Your task to perform on an android device: open app "AliExpress" Image 0: 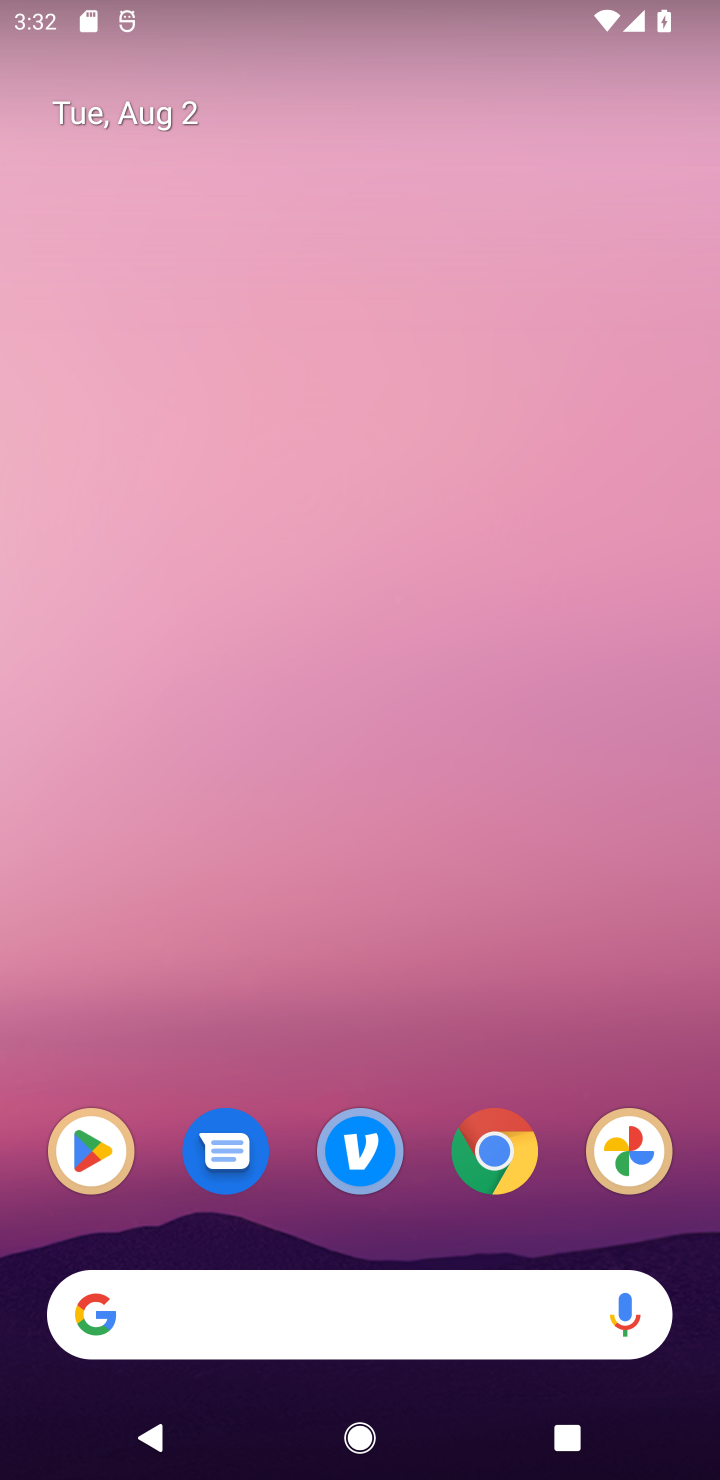
Step 0: drag from (328, 1199) to (443, 263)
Your task to perform on an android device: open app "AliExpress" Image 1: 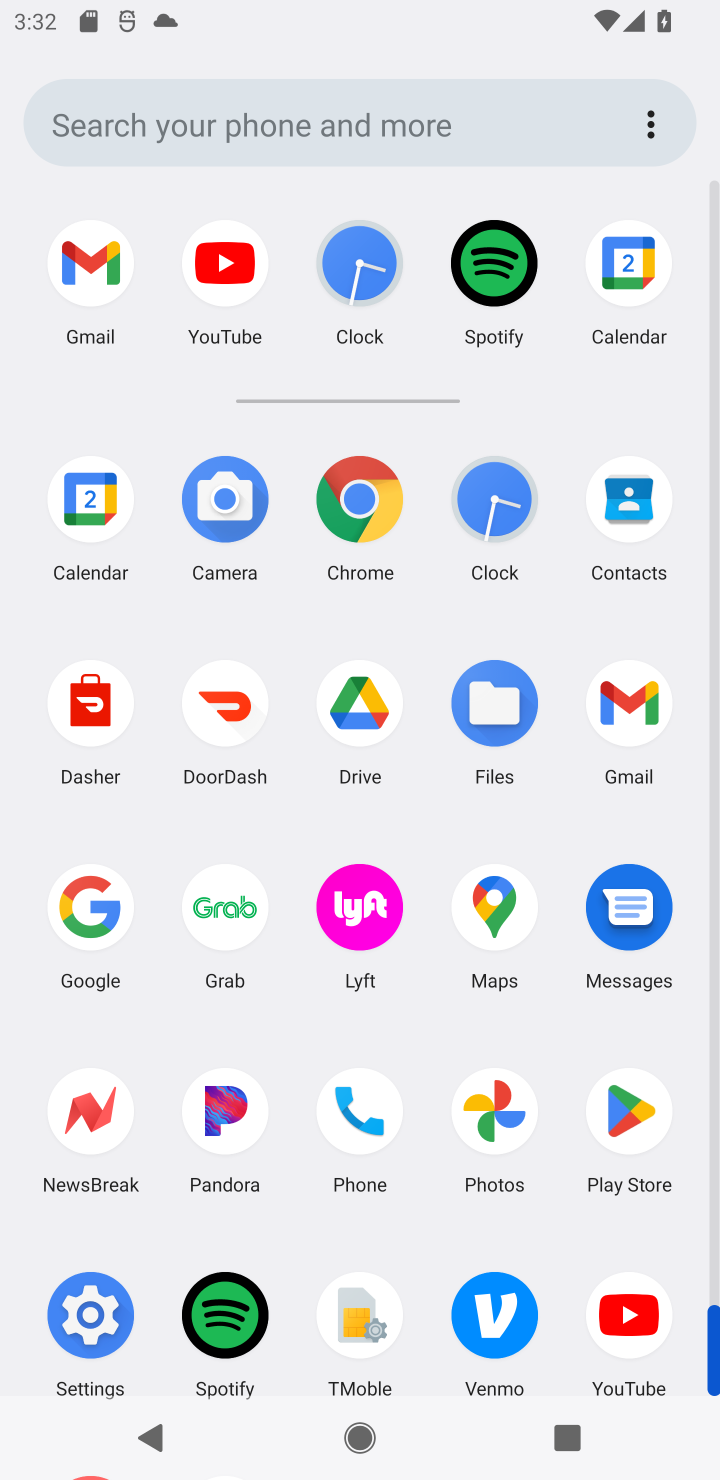
Step 1: drag from (329, 1083) to (448, 511)
Your task to perform on an android device: open app "AliExpress" Image 2: 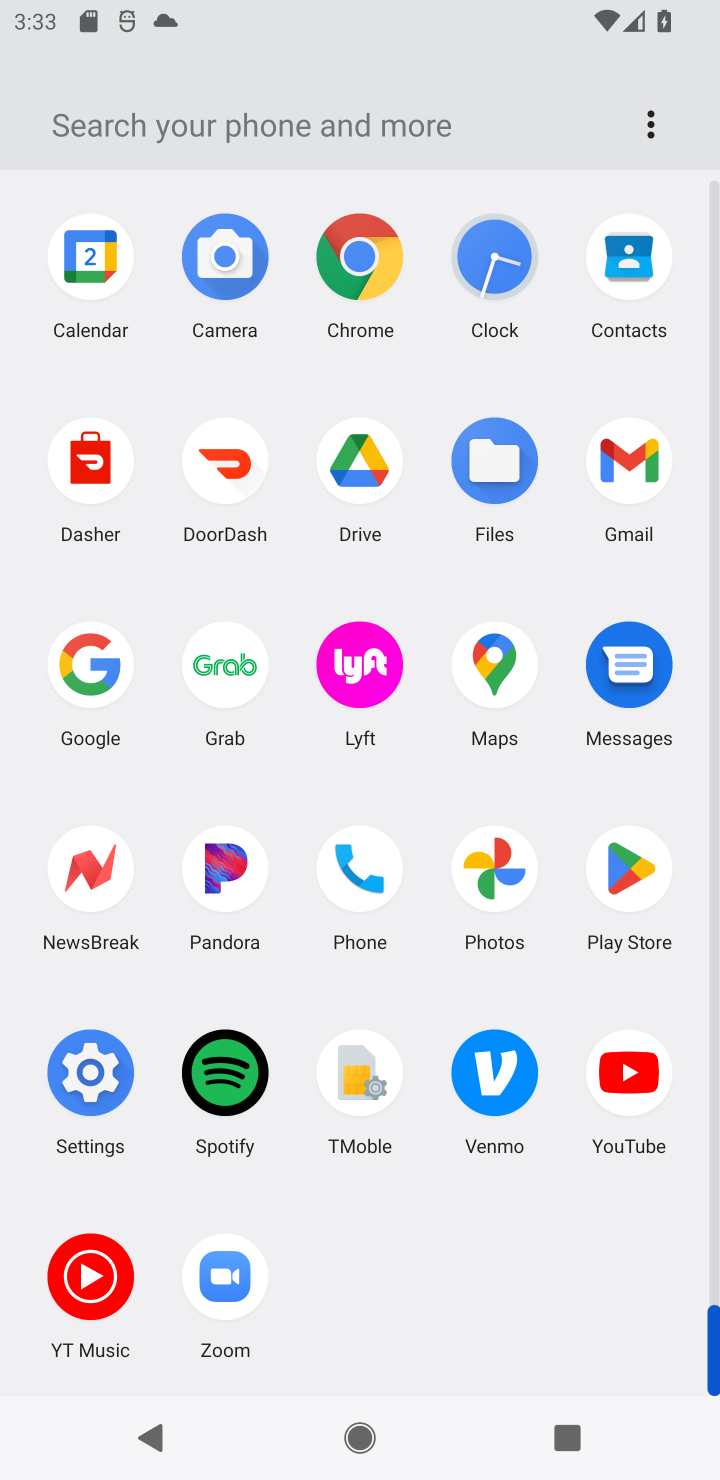
Step 2: click (597, 910)
Your task to perform on an android device: open app "AliExpress" Image 3: 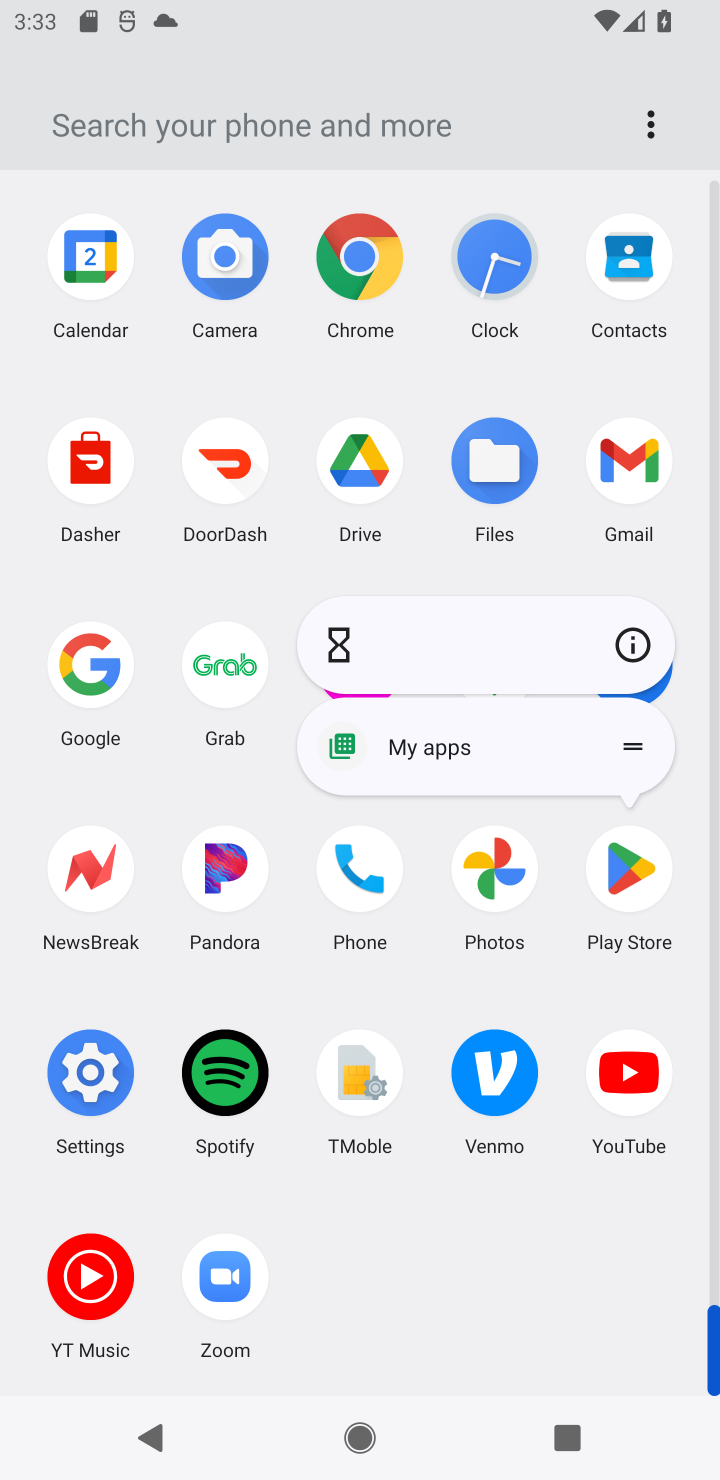
Step 3: click (625, 944)
Your task to perform on an android device: open app "AliExpress" Image 4: 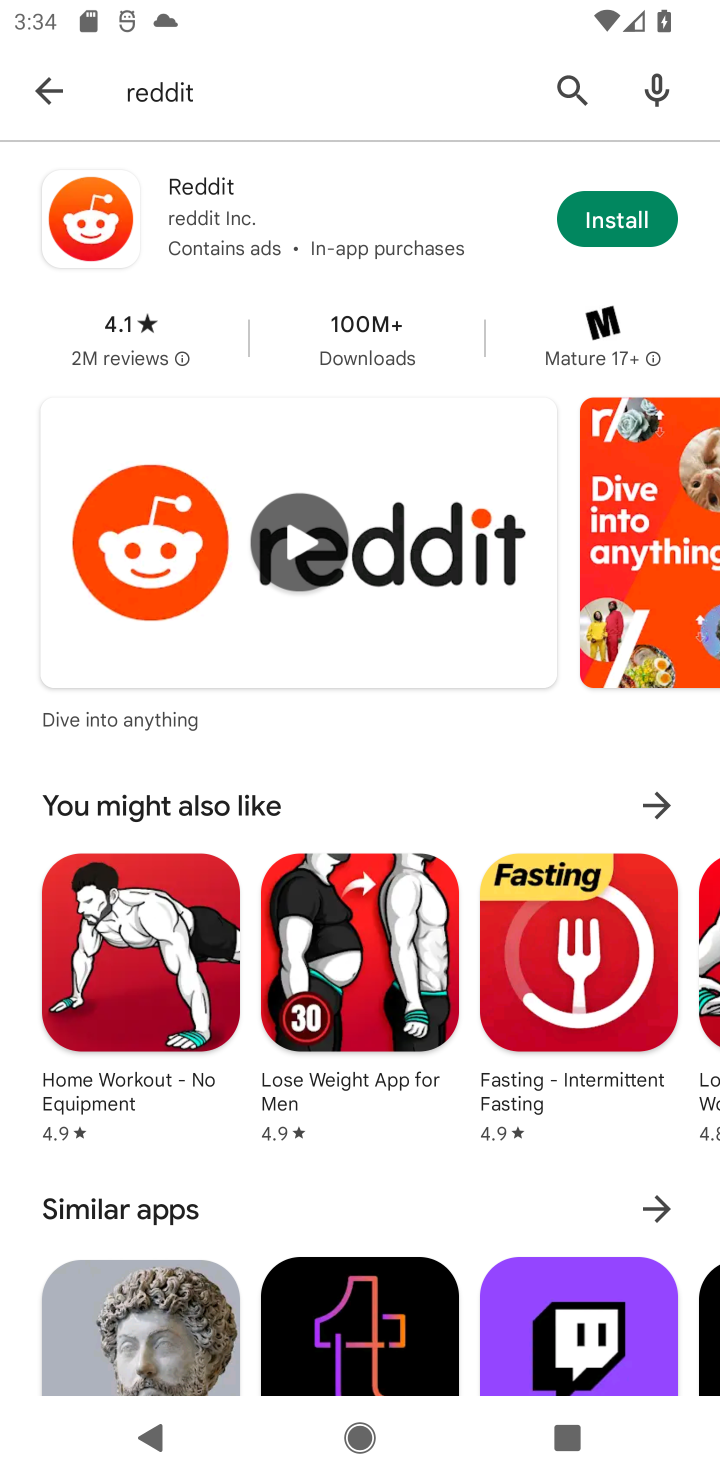
Step 4: click (53, 80)
Your task to perform on an android device: open app "AliExpress" Image 5: 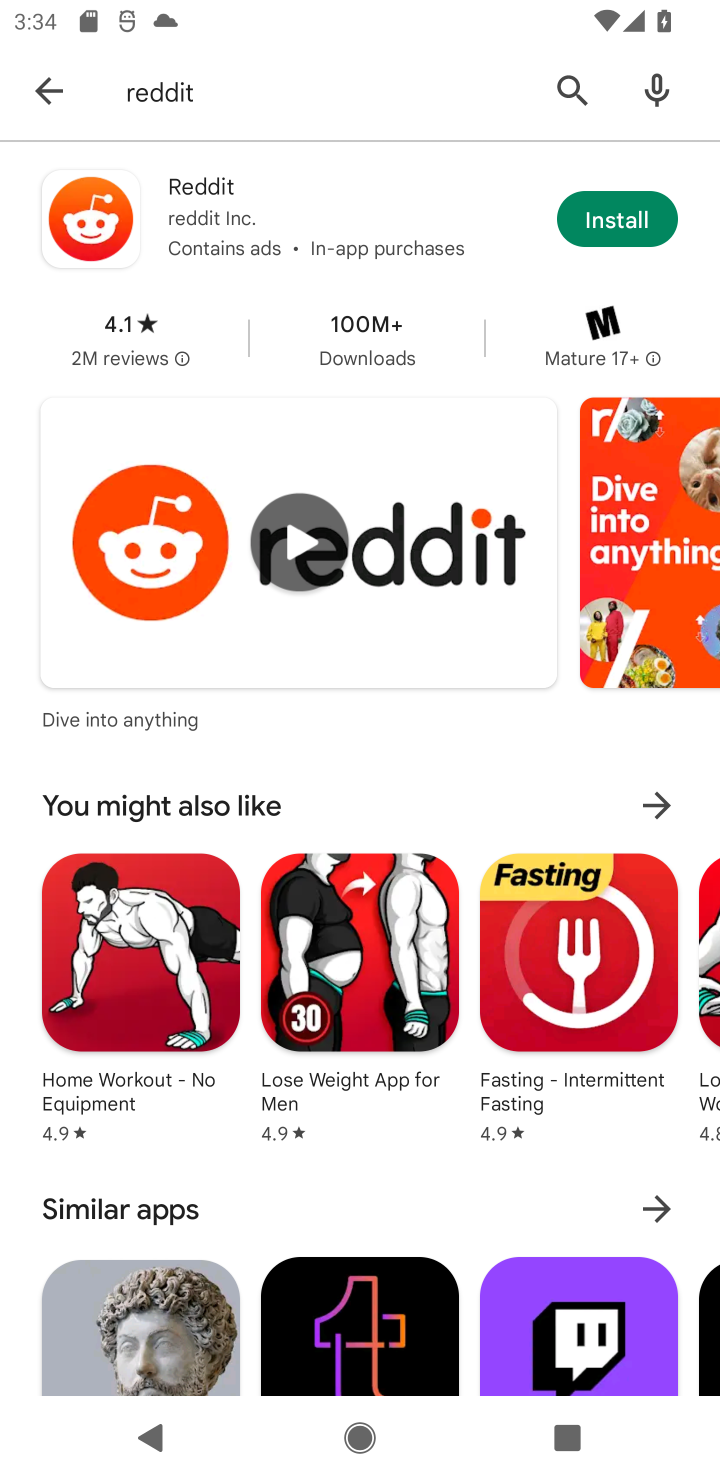
Step 5: click (53, 89)
Your task to perform on an android device: open app "AliExpress" Image 6: 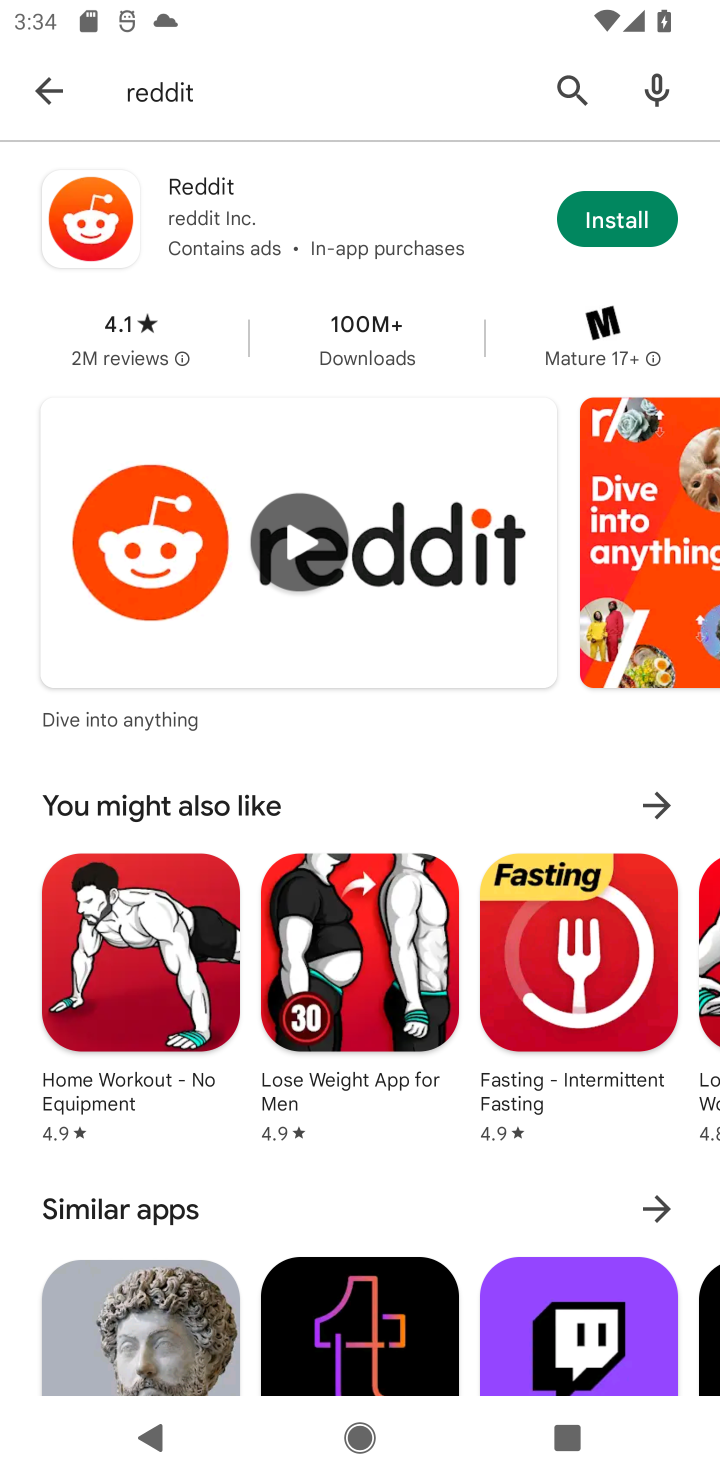
Step 6: click (49, 96)
Your task to perform on an android device: open app "AliExpress" Image 7: 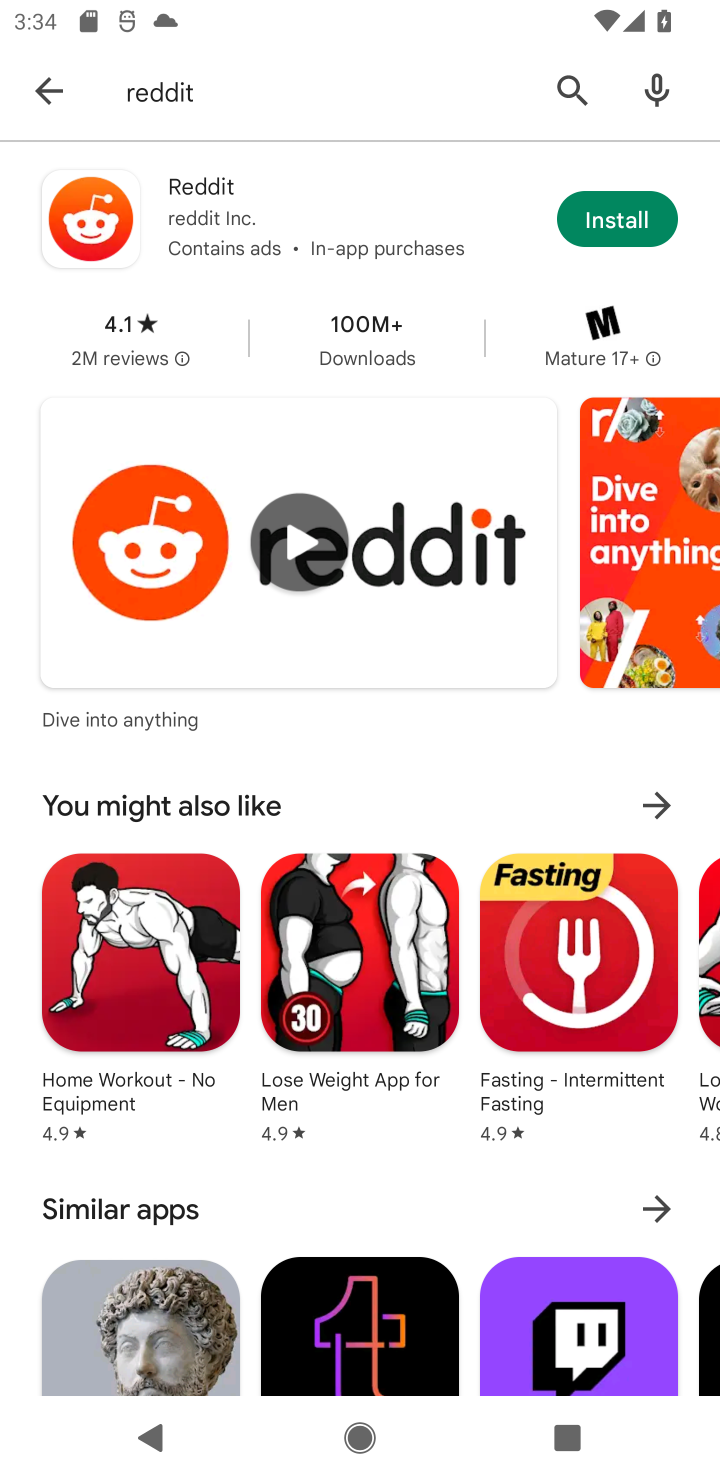
Step 7: click (49, 87)
Your task to perform on an android device: open app "AliExpress" Image 8: 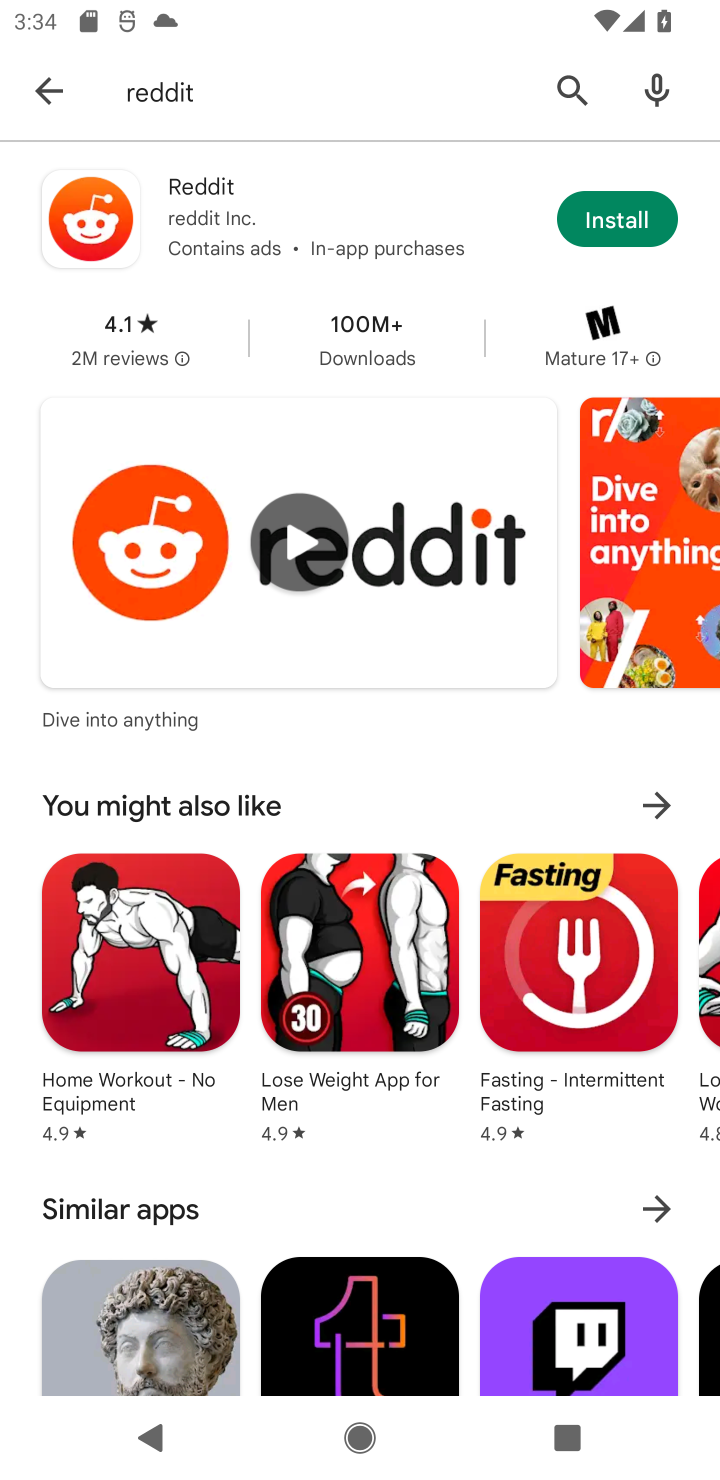
Step 8: task complete